Your task to perform on an android device: What is the recent news? Image 0: 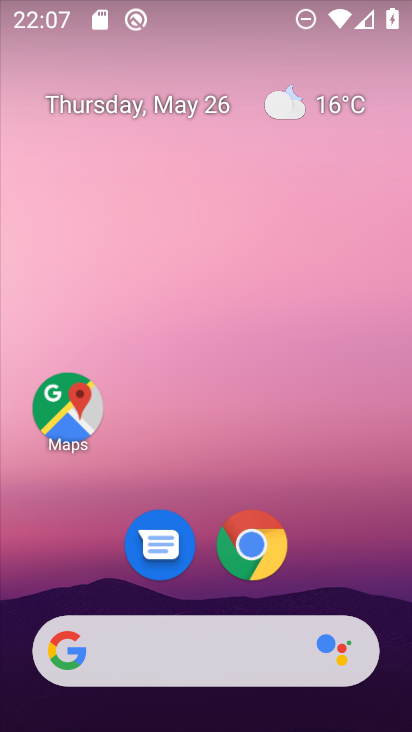
Step 0: drag from (333, 596) to (285, 81)
Your task to perform on an android device: What is the recent news? Image 1: 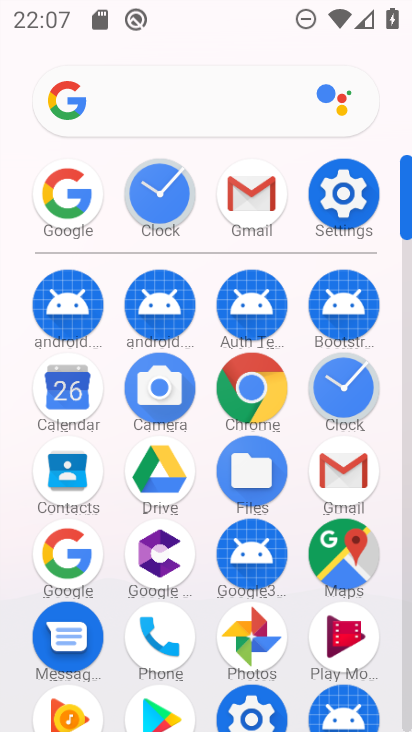
Step 1: click (69, 556)
Your task to perform on an android device: What is the recent news? Image 2: 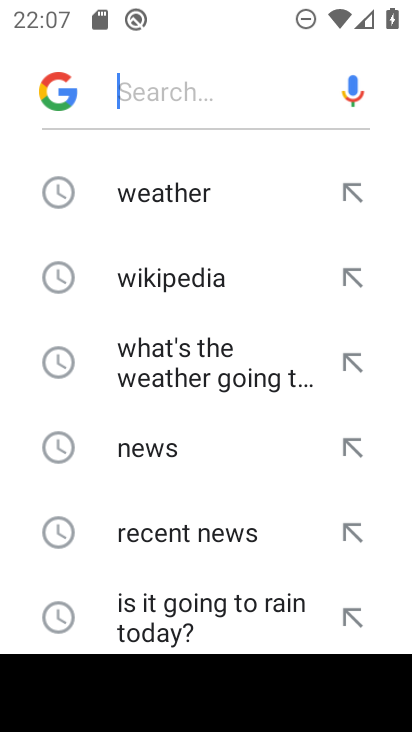
Step 2: click (202, 535)
Your task to perform on an android device: What is the recent news? Image 3: 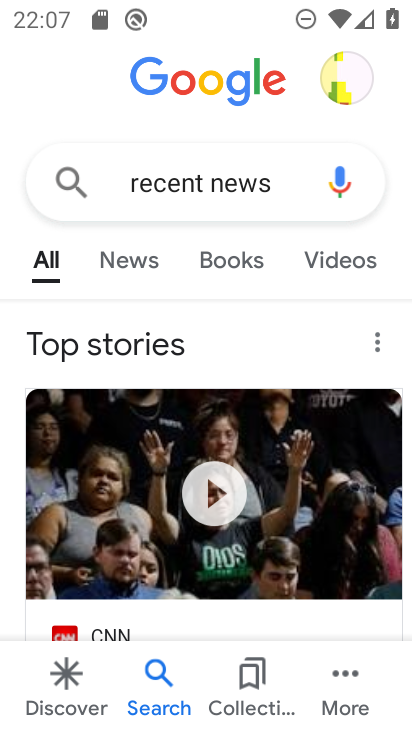
Step 3: task complete